Your task to perform on an android device: see creations saved in the google photos Image 0: 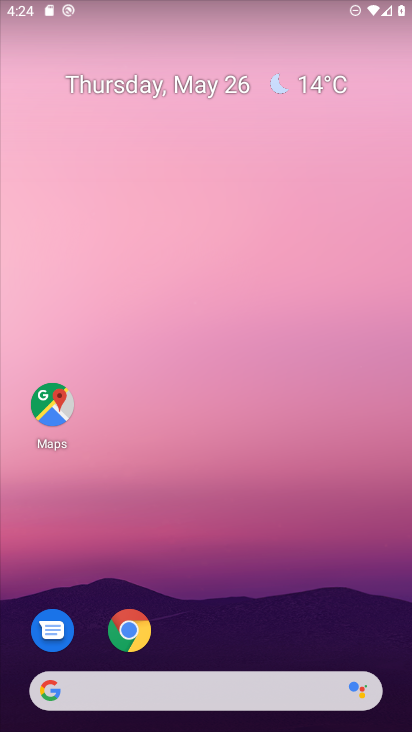
Step 0: drag from (239, 620) to (170, 6)
Your task to perform on an android device: see creations saved in the google photos Image 1: 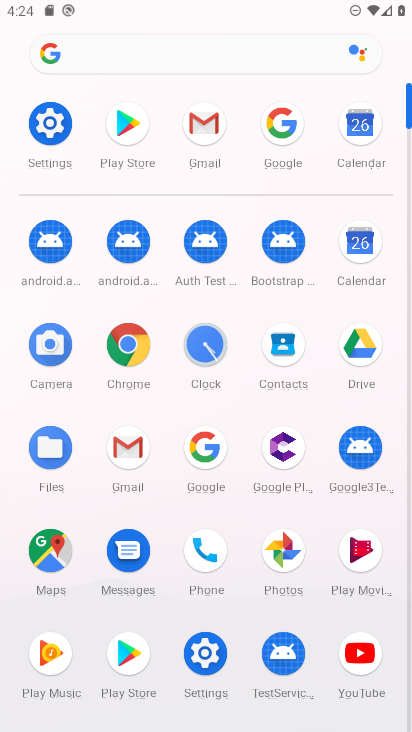
Step 1: click (284, 547)
Your task to perform on an android device: see creations saved in the google photos Image 2: 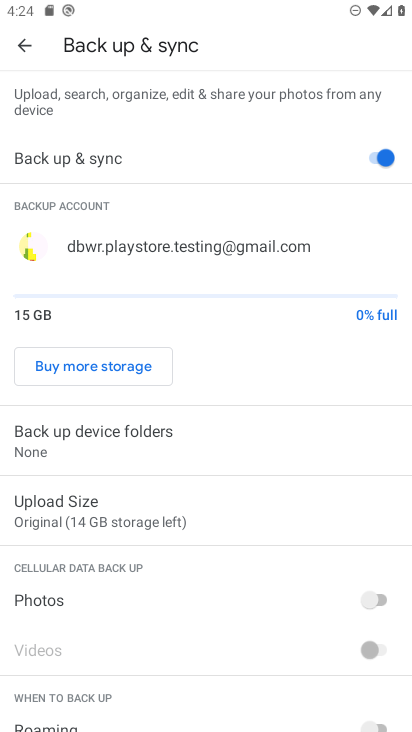
Step 2: click (25, 41)
Your task to perform on an android device: see creations saved in the google photos Image 3: 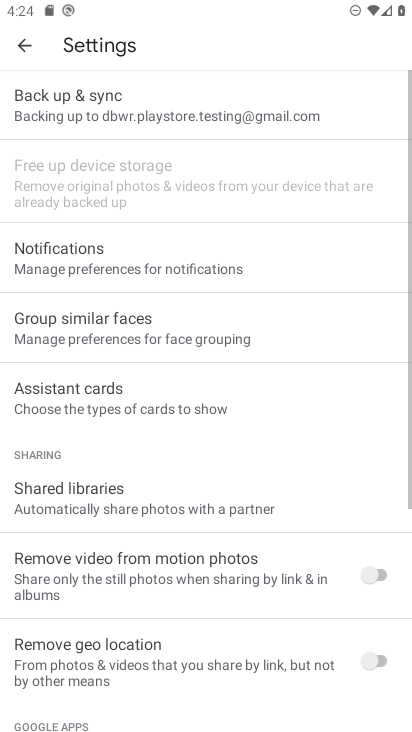
Step 3: click (25, 41)
Your task to perform on an android device: see creations saved in the google photos Image 4: 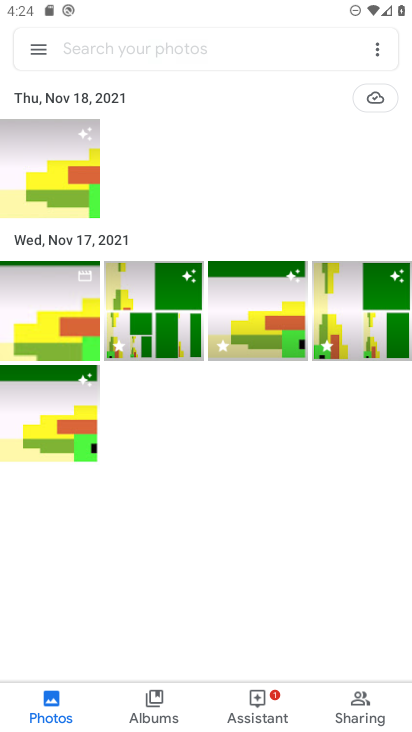
Step 4: click (198, 52)
Your task to perform on an android device: see creations saved in the google photos Image 5: 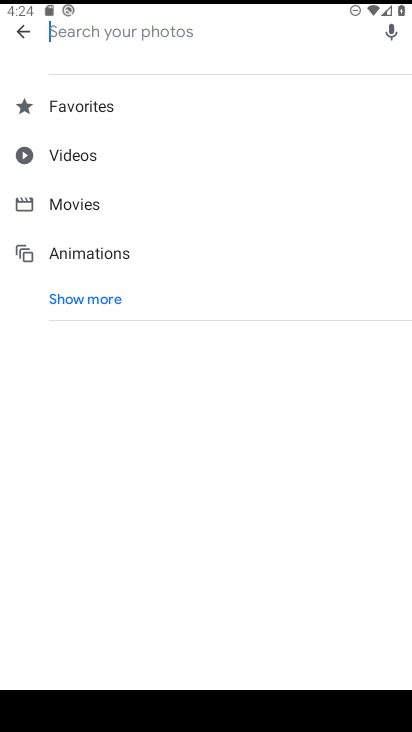
Step 5: click (87, 300)
Your task to perform on an android device: see creations saved in the google photos Image 6: 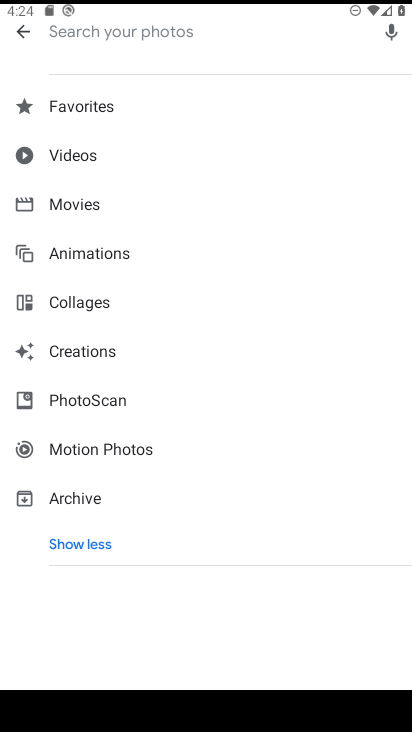
Step 6: click (80, 353)
Your task to perform on an android device: see creations saved in the google photos Image 7: 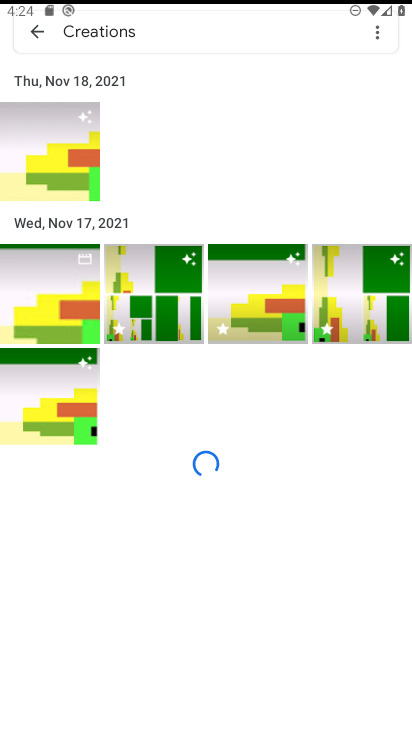
Step 7: task complete